Your task to perform on an android device: Show me popular games on the Play Store Image 0: 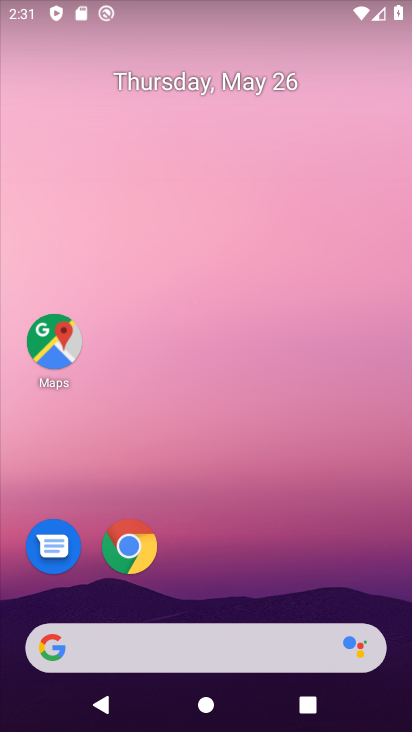
Step 0: drag from (388, 674) to (366, 201)
Your task to perform on an android device: Show me popular games on the Play Store Image 1: 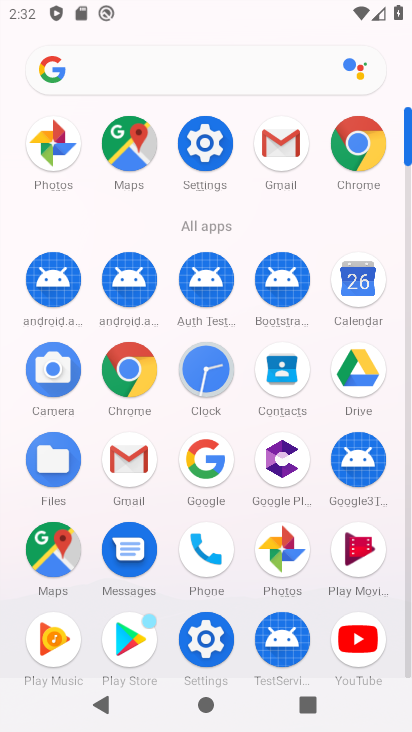
Step 1: click (124, 644)
Your task to perform on an android device: Show me popular games on the Play Store Image 2: 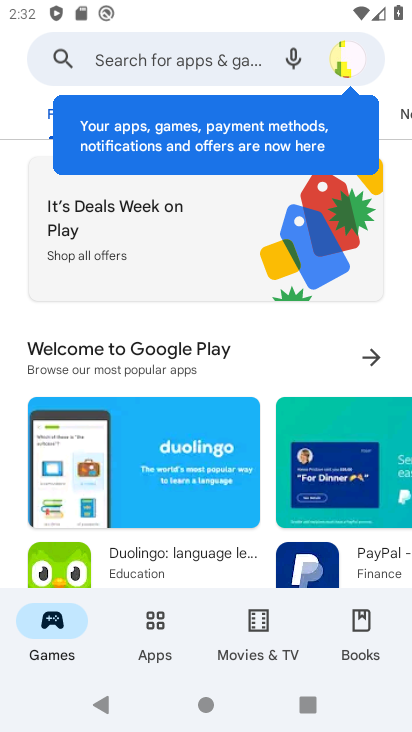
Step 2: click (133, 62)
Your task to perform on an android device: Show me popular games on the Play Store Image 3: 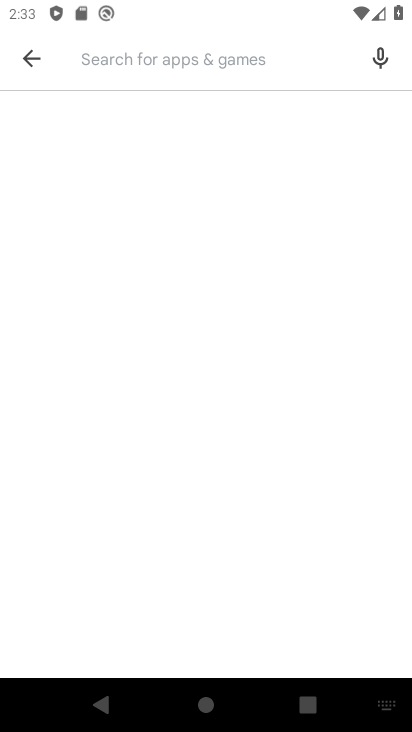
Step 3: type "popular games"
Your task to perform on an android device: Show me popular games on the Play Store Image 4: 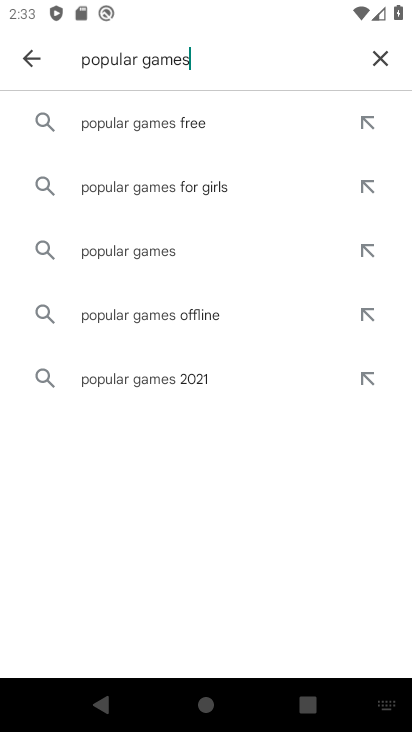
Step 4: click (137, 243)
Your task to perform on an android device: Show me popular games on the Play Store Image 5: 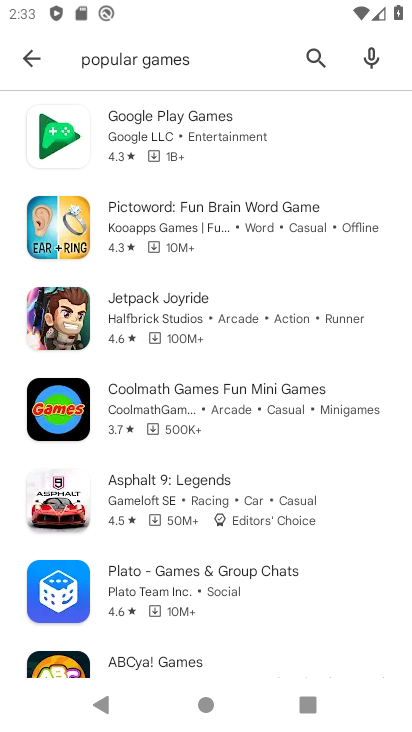
Step 5: task complete